Your task to perform on an android device: Open CNN.com Image 0: 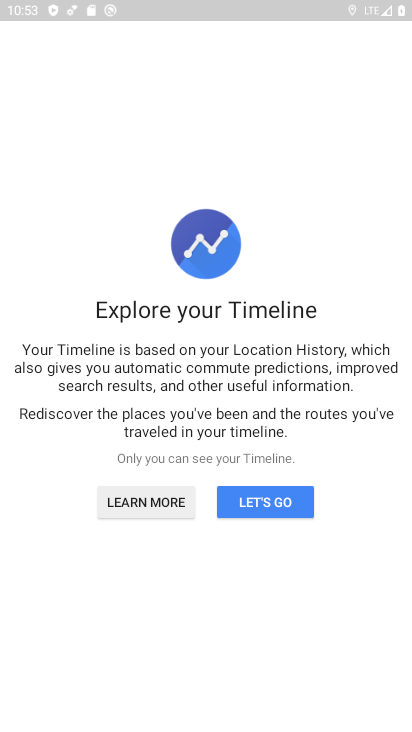
Step 0: press home button
Your task to perform on an android device: Open CNN.com Image 1: 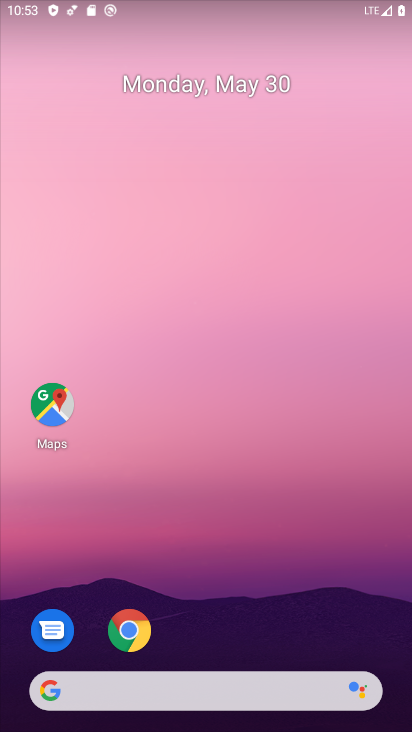
Step 1: click (136, 635)
Your task to perform on an android device: Open CNN.com Image 2: 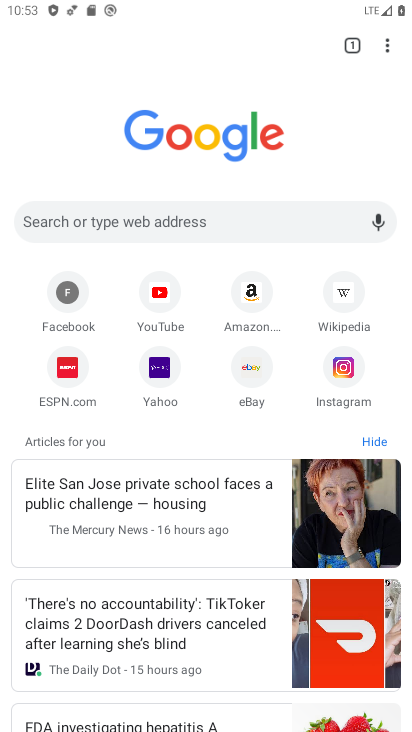
Step 2: click (66, 219)
Your task to perform on an android device: Open CNN.com Image 3: 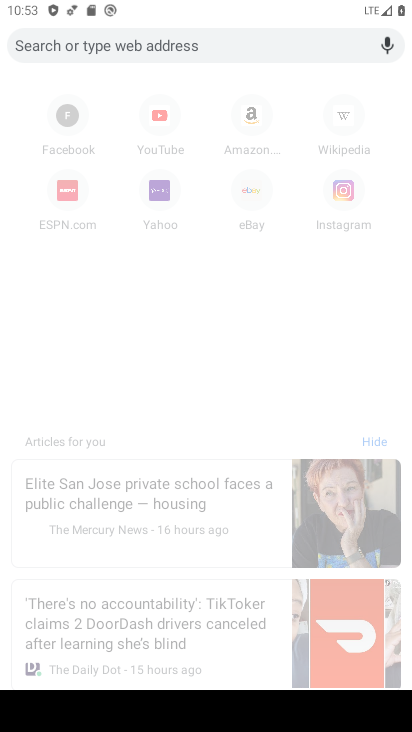
Step 3: type "CNN.com"
Your task to perform on an android device: Open CNN.com Image 4: 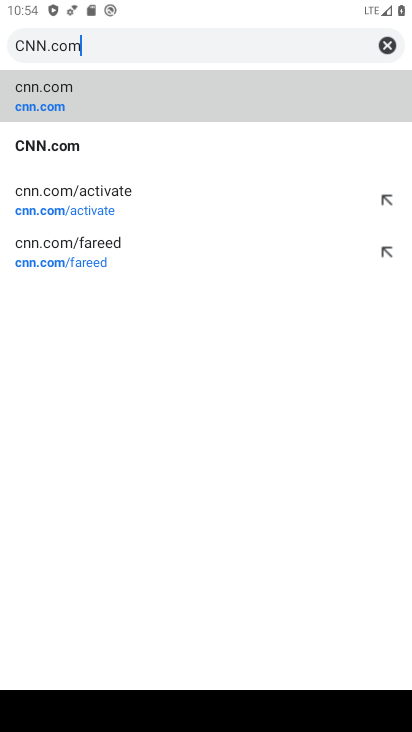
Step 4: click (147, 94)
Your task to perform on an android device: Open CNN.com Image 5: 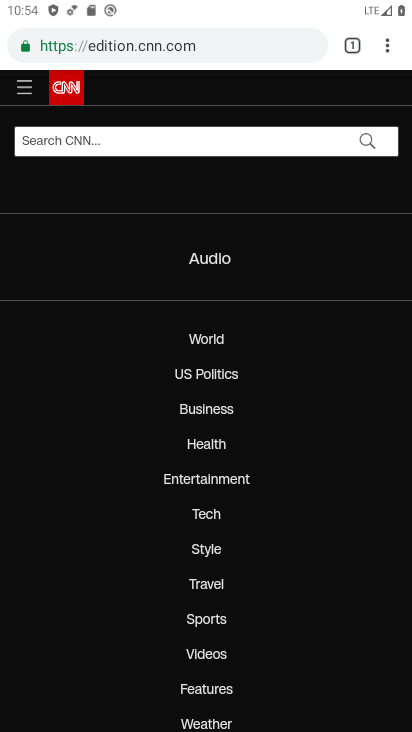
Step 5: task complete